Your task to perform on an android device: Go to CNN.com Image 0: 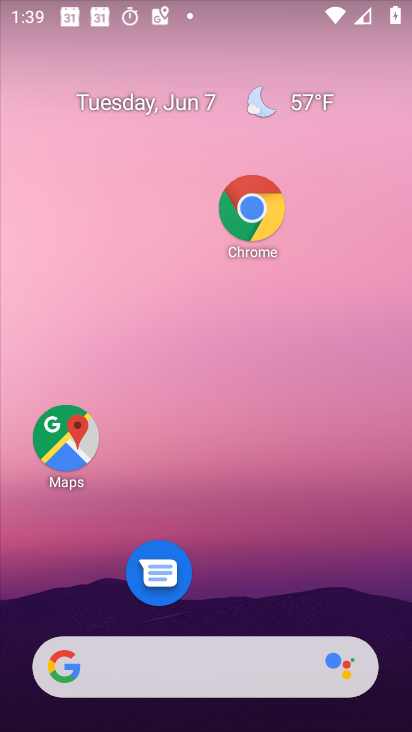
Step 0: click (264, 225)
Your task to perform on an android device: Go to CNN.com Image 1: 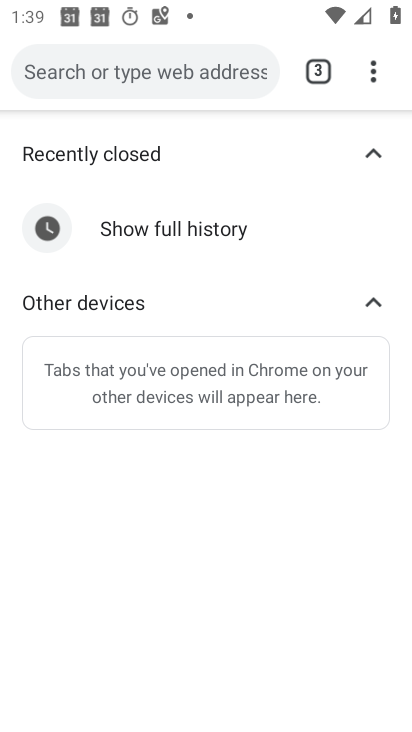
Step 1: click (316, 62)
Your task to perform on an android device: Go to CNN.com Image 2: 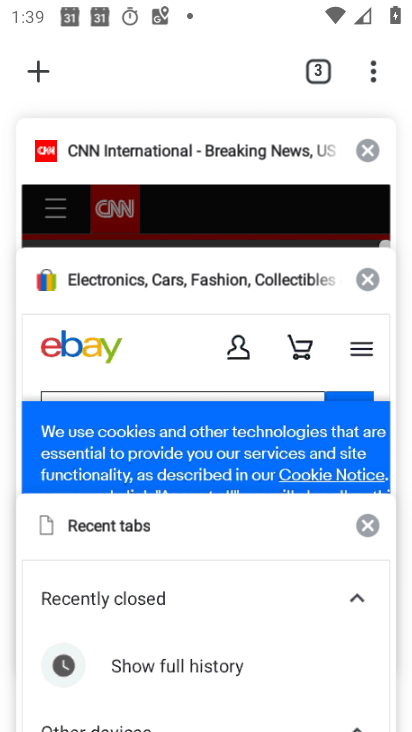
Step 2: click (175, 163)
Your task to perform on an android device: Go to CNN.com Image 3: 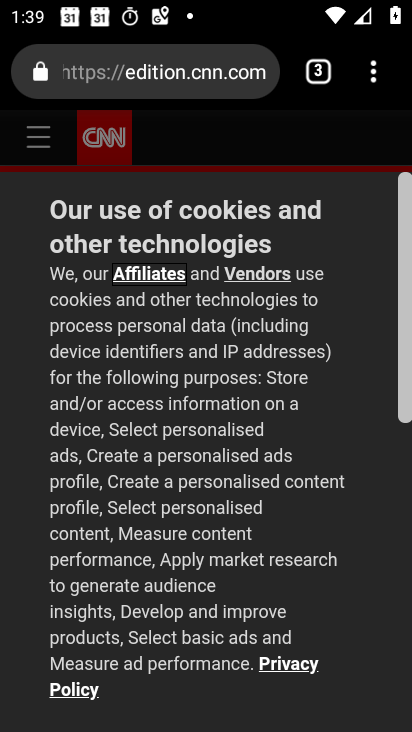
Step 3: task complete